Your task to perform on an android device: Open the calendar and show me this week's events? Image 0: 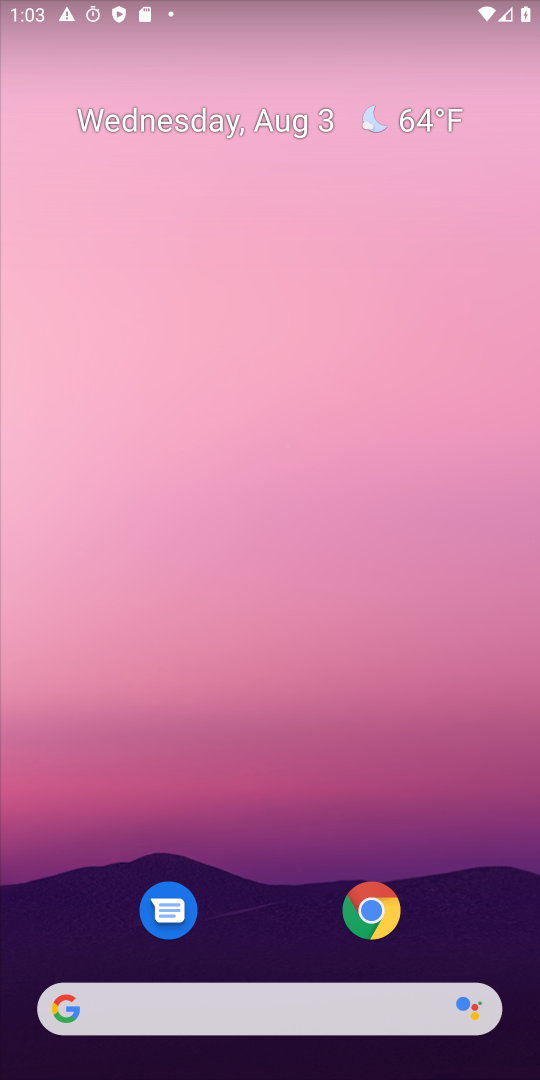
Step 0: drag from (241, 970) to (263, 25)
Your task to perform on an android device: Open the calendar and show me this week's events? Image 1: 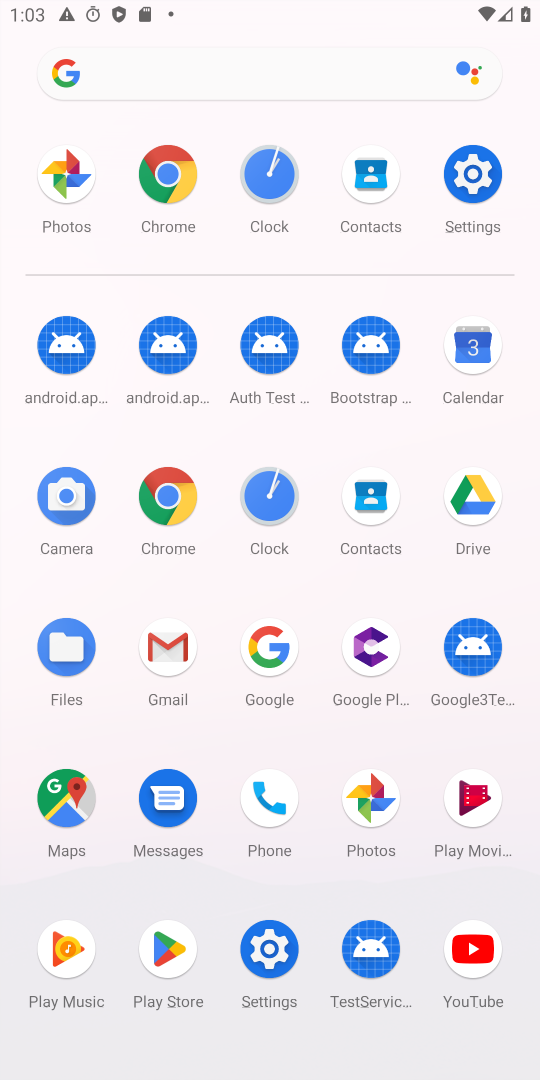
Step 1: click (478, 337)
Your task to perform on an android device: Open the calendar and show me this week's events? Image 2: 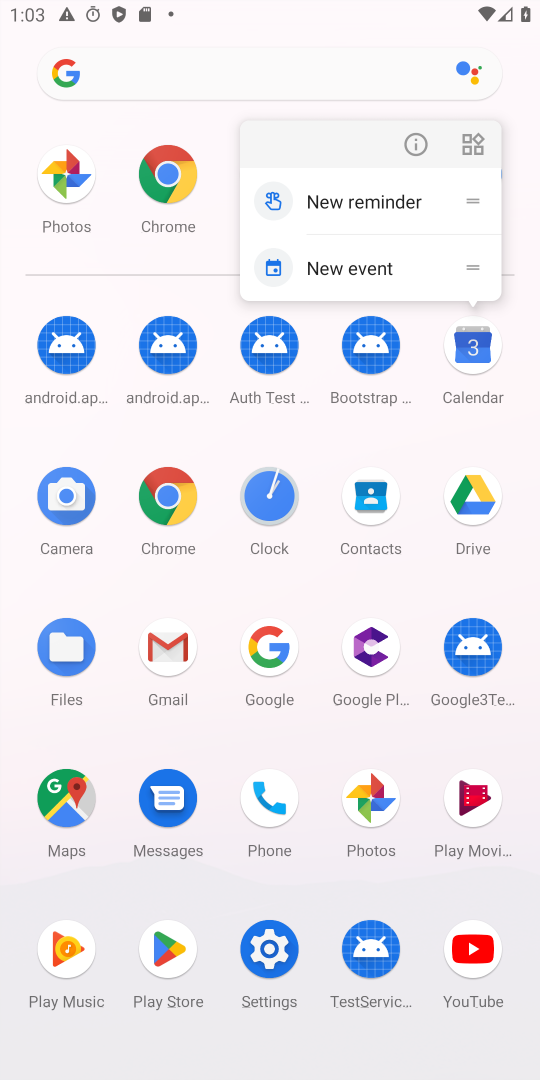
Step 2: click (478, 337)
Your task to perform on an android device: Open the calendar and show me this week's events? Image 3: 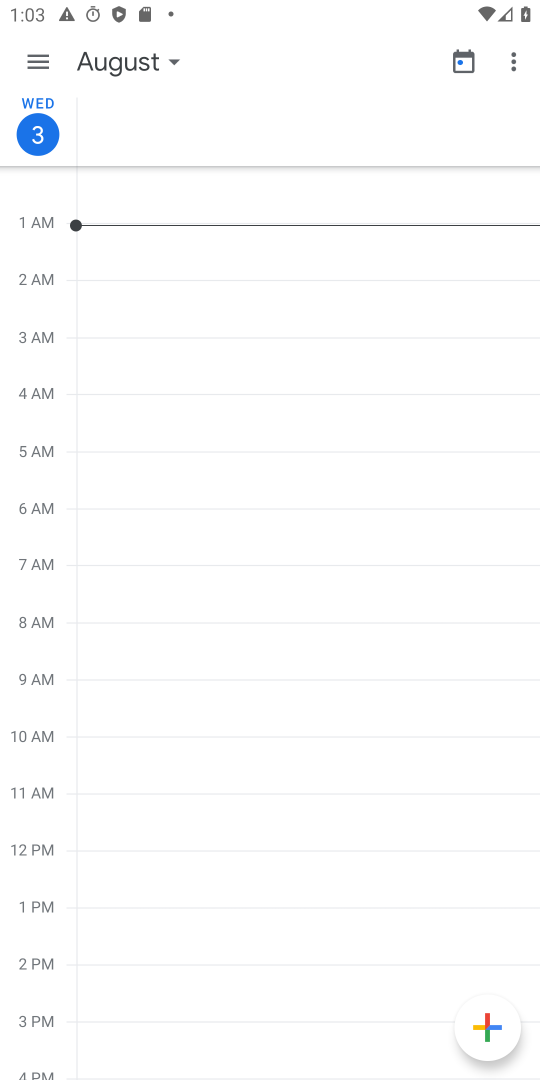
Step 3: click (175, 56)
Your task to perform on an android device: Open the calendar and show me this week's events? Image 4: 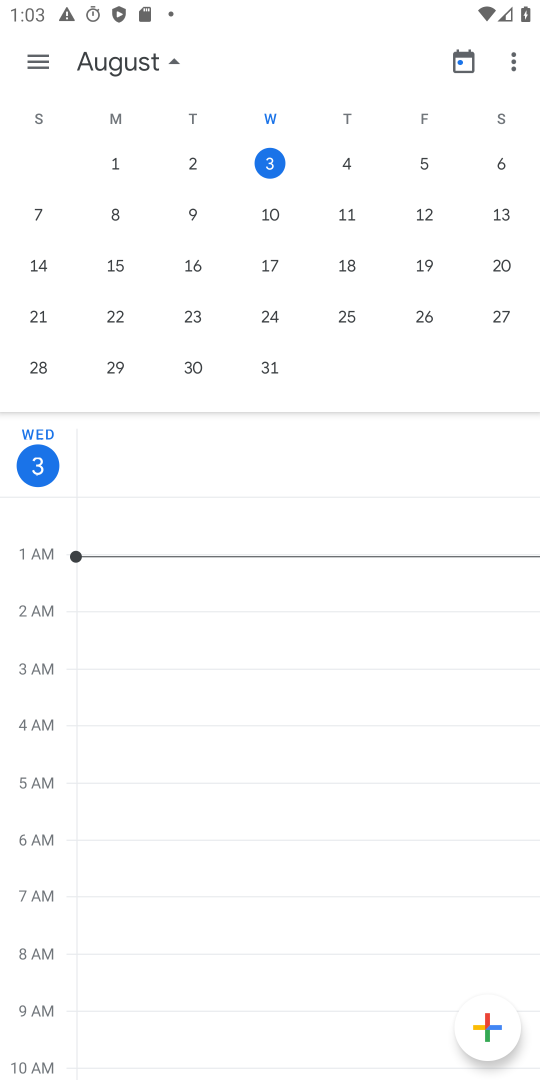
Step 4: click (46, 58)
Your task to perform on an android device: Open the calendar and show me this week's events? Image 5: 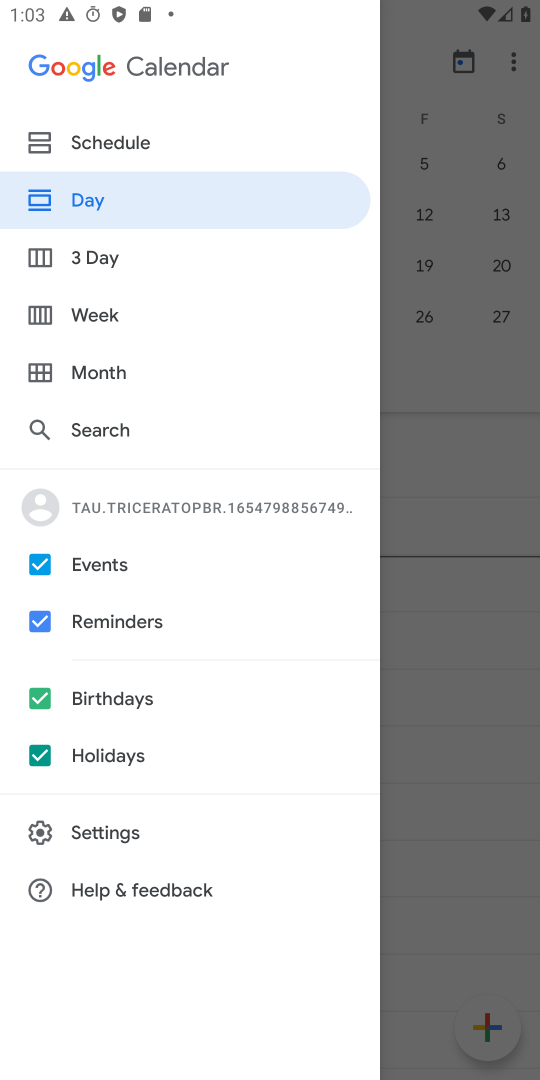
Step 5: click (82, 317)
Your task to perform on an android device: Open the calendar and show me this week's events? Image 6: 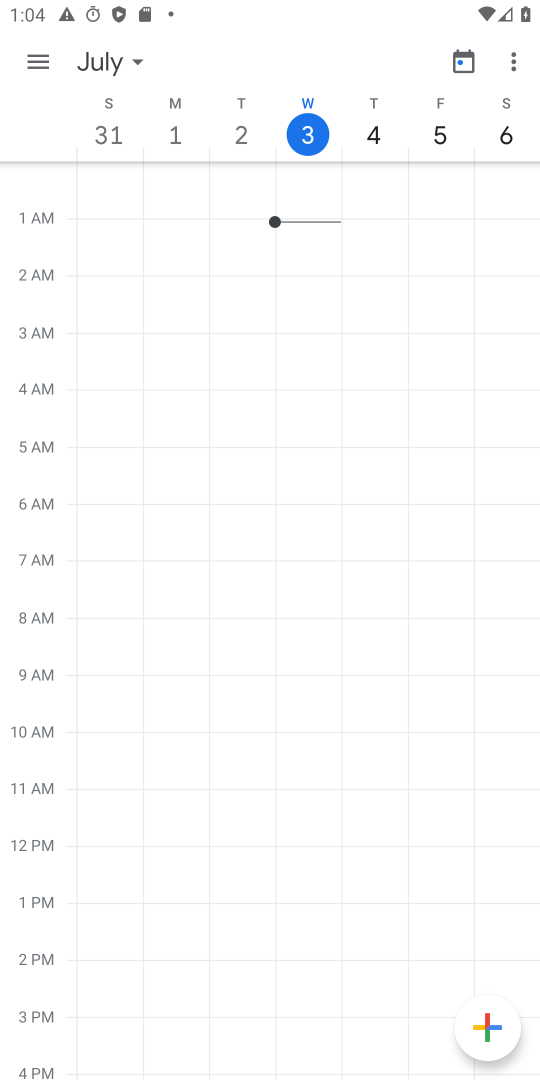
Step 6: task complete